Your task to perform on an android device: open the mobile data screen to see how much data has been used Image 0: 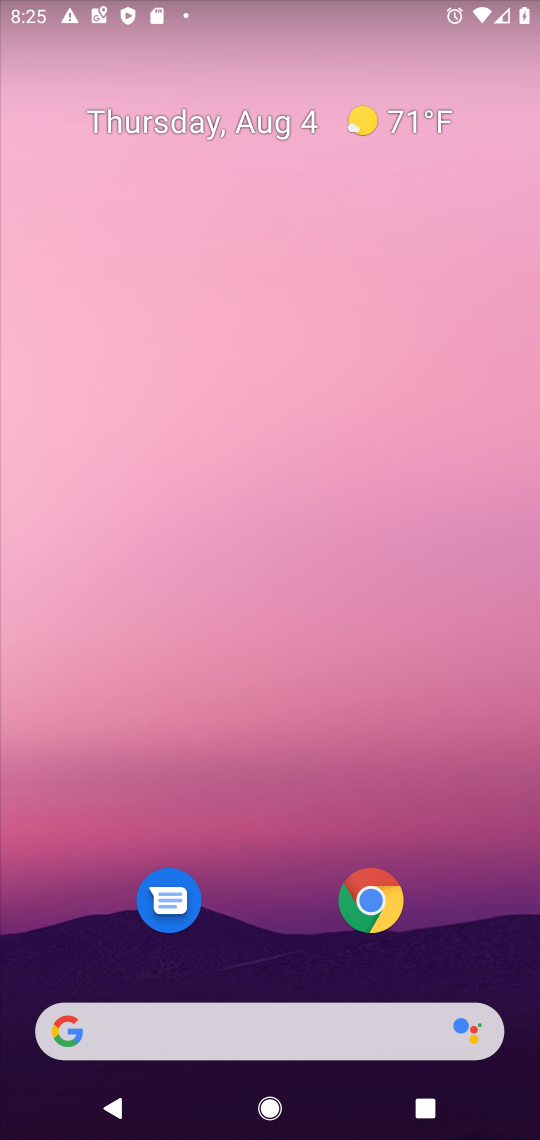
Step 0: press home button
Your task to perform on an android device: open the mobile data screen to see how much data has been used Image 1: 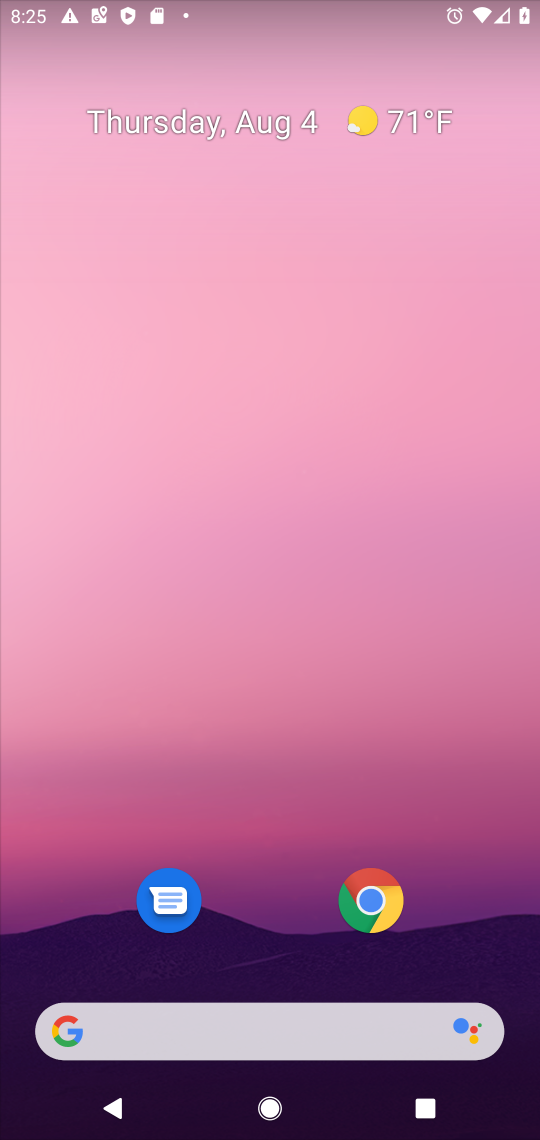
Step 1: drag from (215, 1042) to (319, 72)
Your task to perform on an android device: open the mobile data screen to see how much data has been used Image 2: 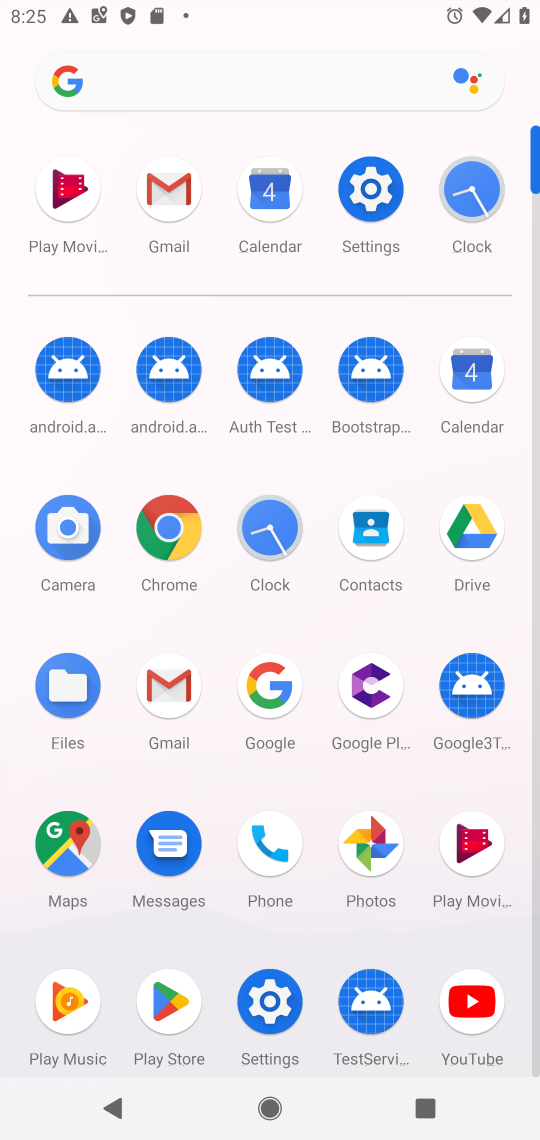
Step 2: click (370, 189)
Your task to perform on an android device: open the mobile data screen to see how much data has been used Image 3: 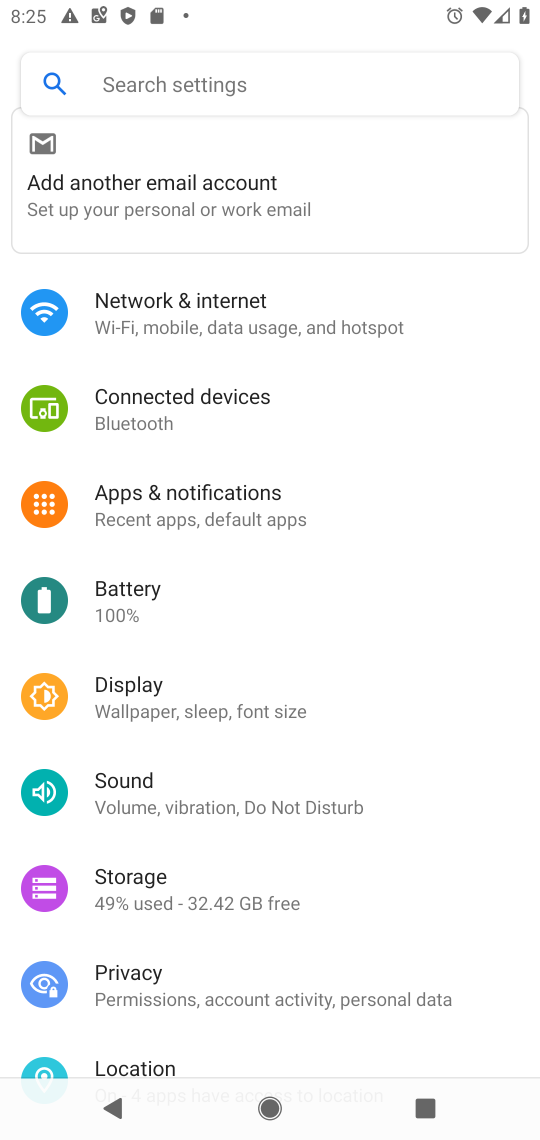
Step 3: click (199, 329)
Your task to perform on an android device: open the mobile data screen to see how much data has been used Image 4: 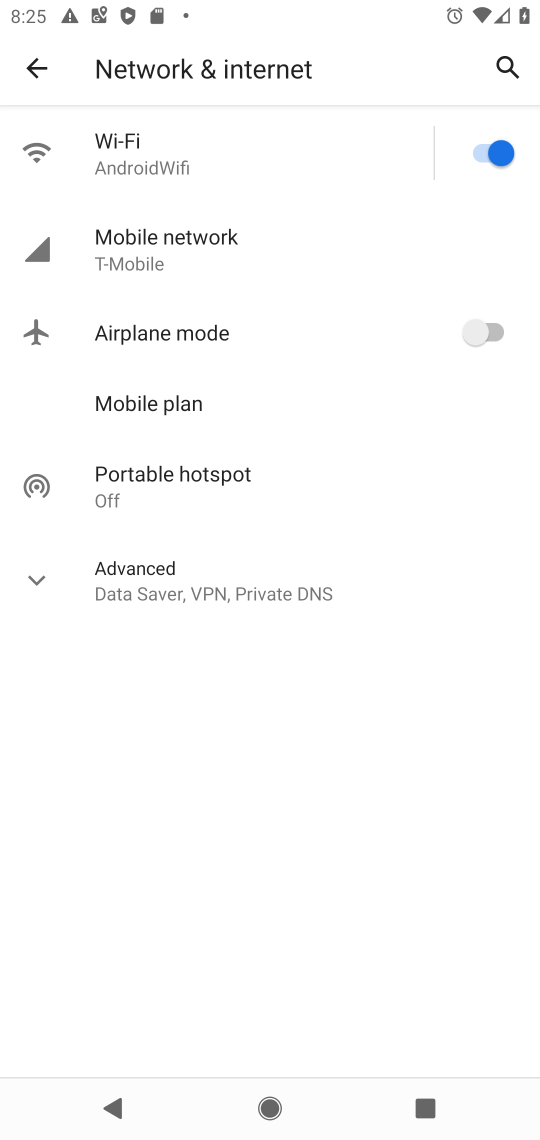
Step 4: click (167, 252)
Your task to perform on an android device: open the mobile data screen to see how much data has been used Image 5: 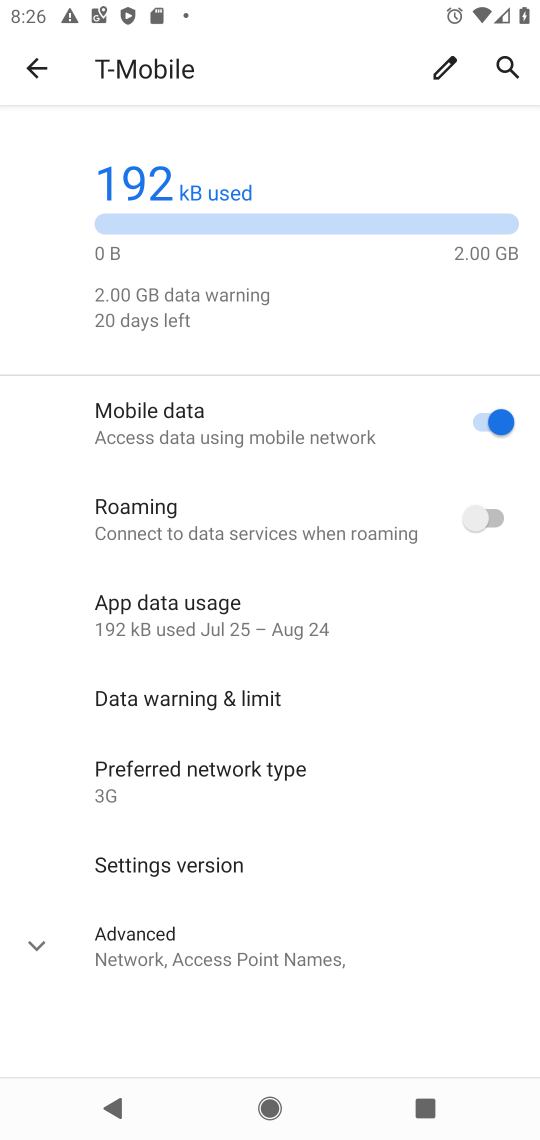
Step 5: task complete